Your task to perform on an android device: check the backup settings in the google photos Image 0: 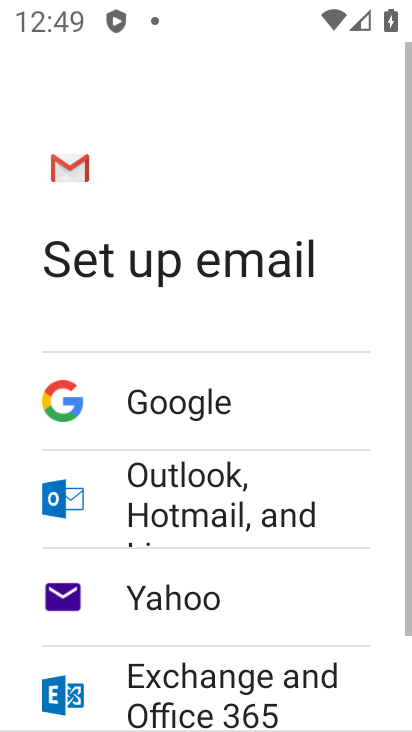
Step 0: press home button
Your task to perform on an android device: check the backup settings in the google photos Image 1: 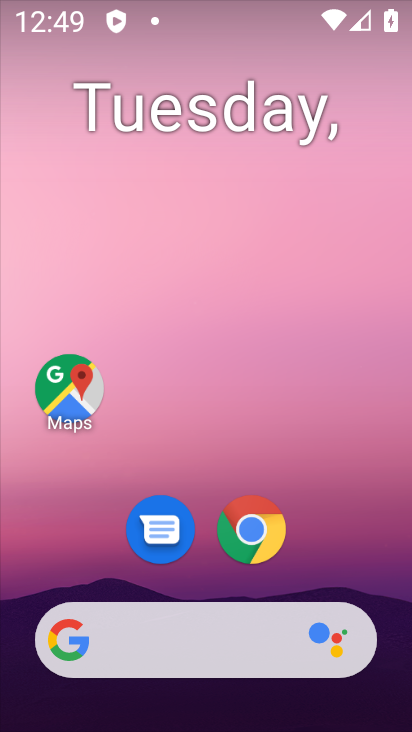
Step 1: drag from (117, 633) to (323, 30)
Your task to perform on an android device: check the backup settings in the google photos Image 2: 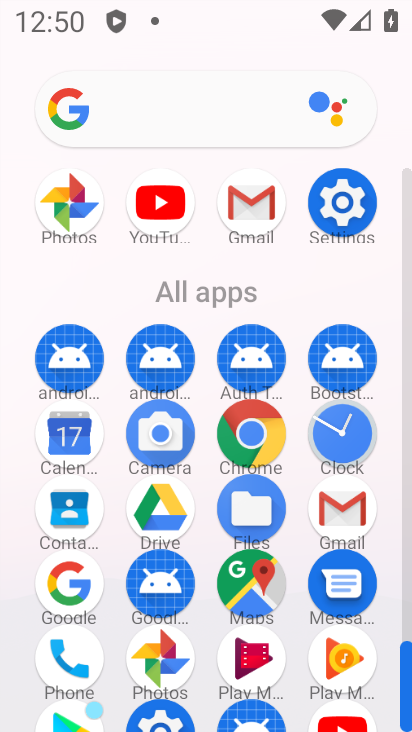
Step 2: click (171, 640)
Your task to perform on an android device: check the backup settings in the google photos Image 3: 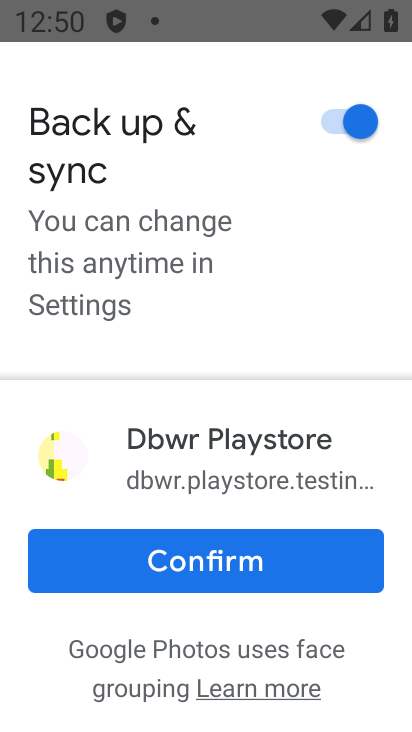
Step 3: click (194, 525)
Your task to perform on an android device: check the backup settings in the google photos Image 4: 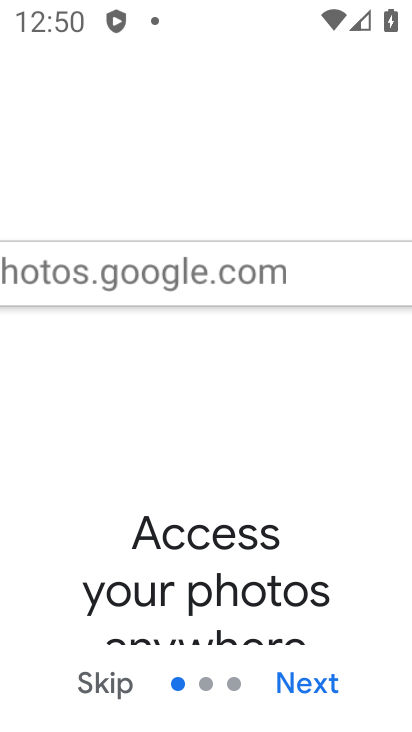
Step 4: click (337, 691)
Your task to perform on an android device: check the backup settings in the google photos Image 5: 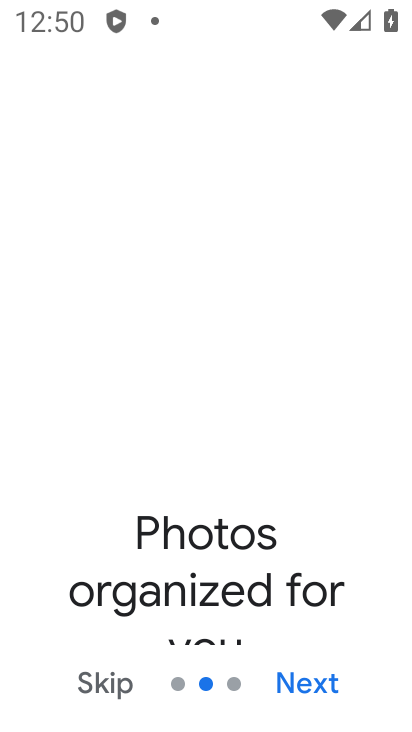
Step 5: click (337, 691)
Your task to perform on an android device: check the backup settings in the google photos Image 6: 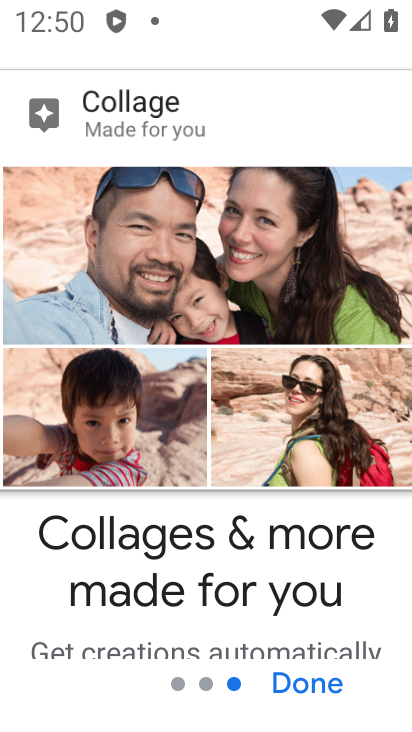
Step 6: click (322, 690)
Your task to perform on an android device: check the backup settings in the google photos Image 7: 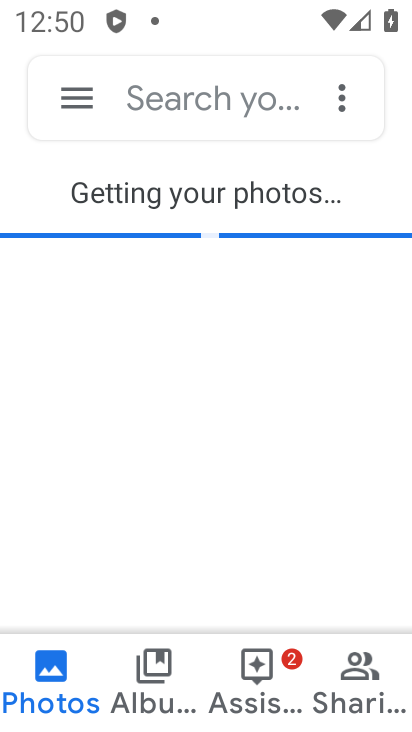
Step 7: click (67, 95)
Your task to perform on an android device: check the backup settings in the google photos Image 8: 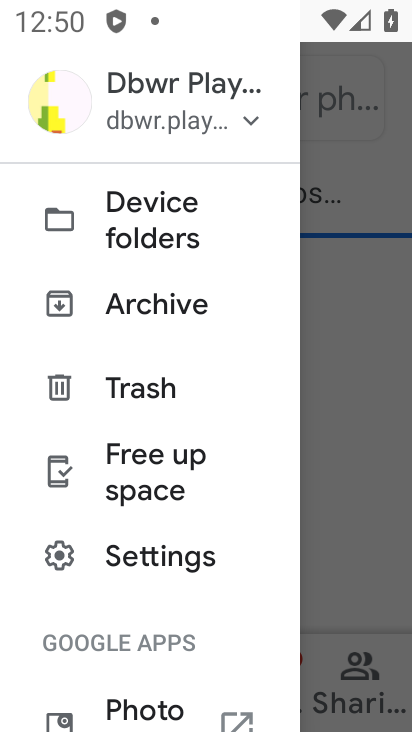
Step 8: click (131, 564)
Your task to perform on an android device: check the backup settings in the google photos Image 9: 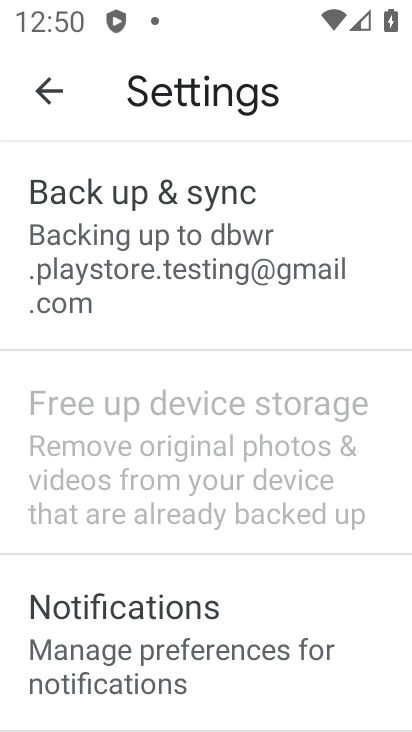
Step 9: click (128, 256)
Your task to perform on an android device: check the backup settings in the google photos Image 10: 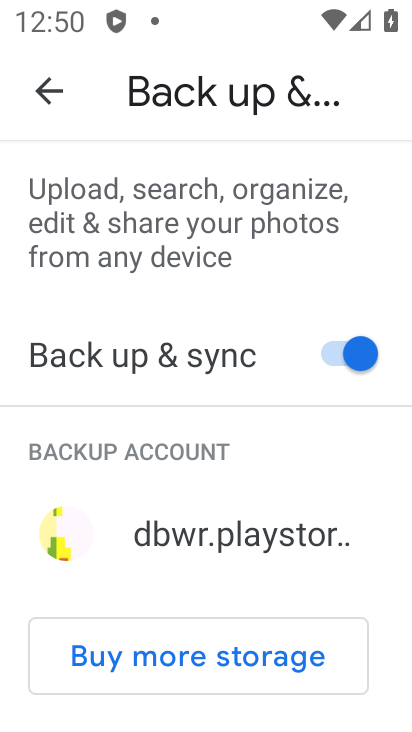
Step 10: task complete